Your task to perform on an android device: uninstall "Facebook Messenger" Image 0: 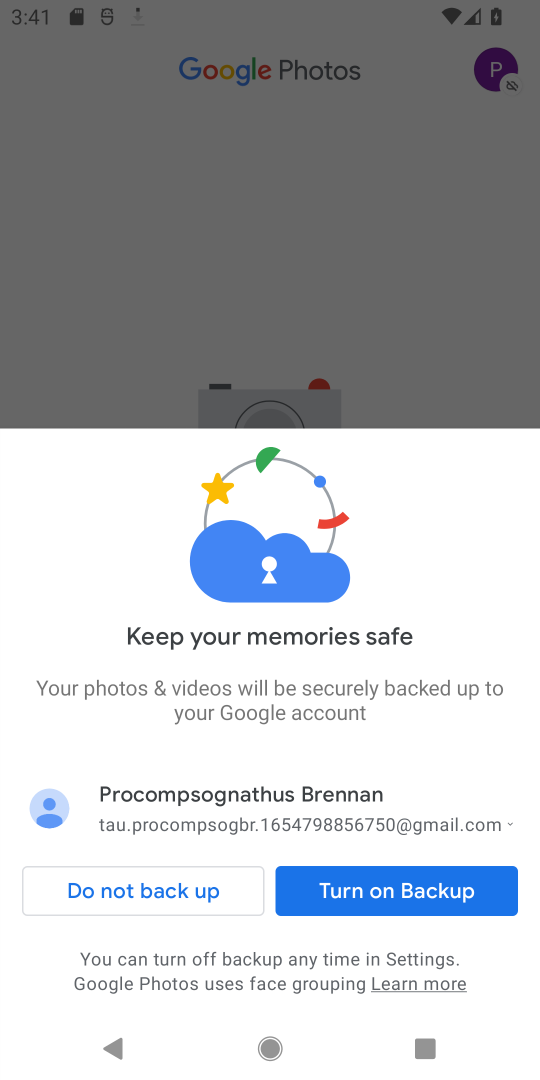
Step 0: press home button
Your task to perform on an android device: uninstall "Facebook Messenger" Image 1: 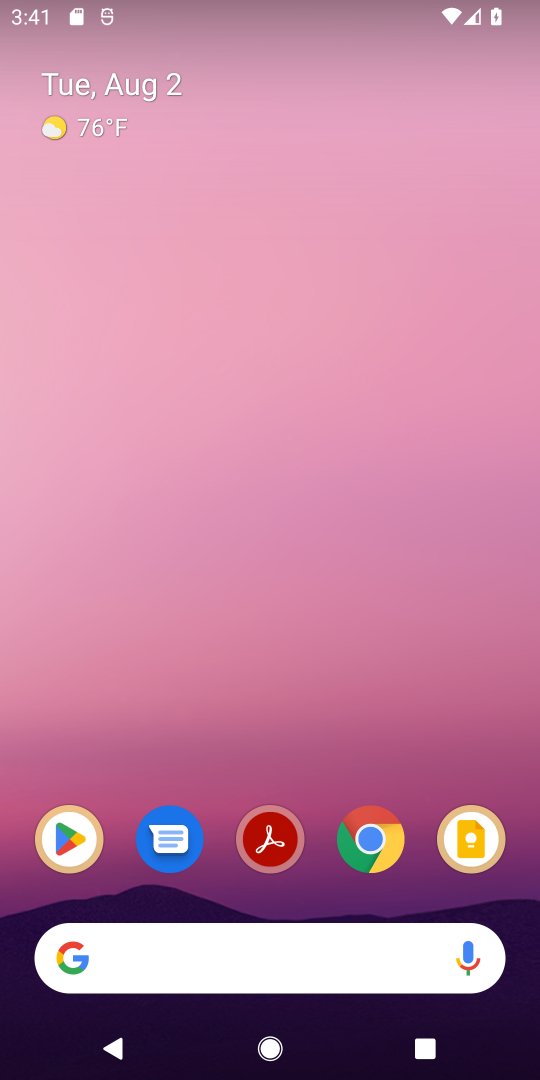
Step 1: drag from (223, 893) to (216, 72)
Your task to perform on an android device: uninstall "Facebook Messenger" Image 2: 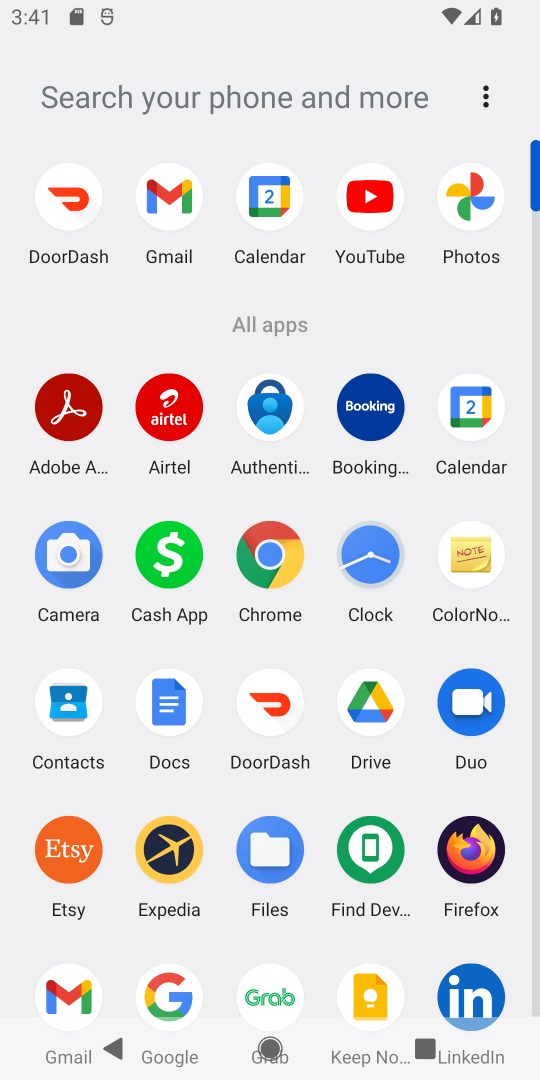
Step 2: click (261, 1063)
Your task to perform on an android device: uninstall "Facebook Messenger" Image 3: 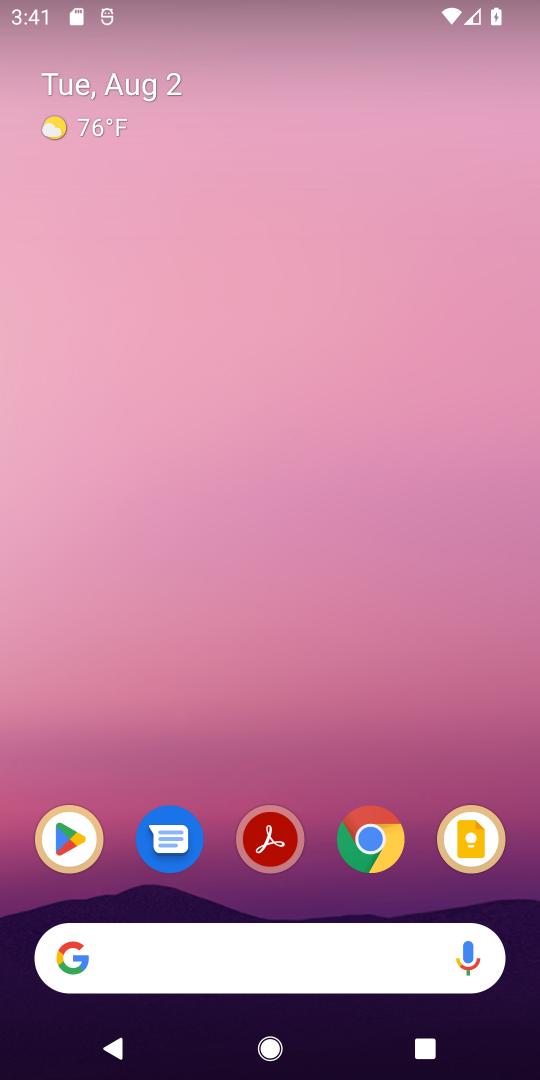
Step 3: click (52, 834)
Your task to perform on an android device: uninstall "Facebook Messenger" Image 4: 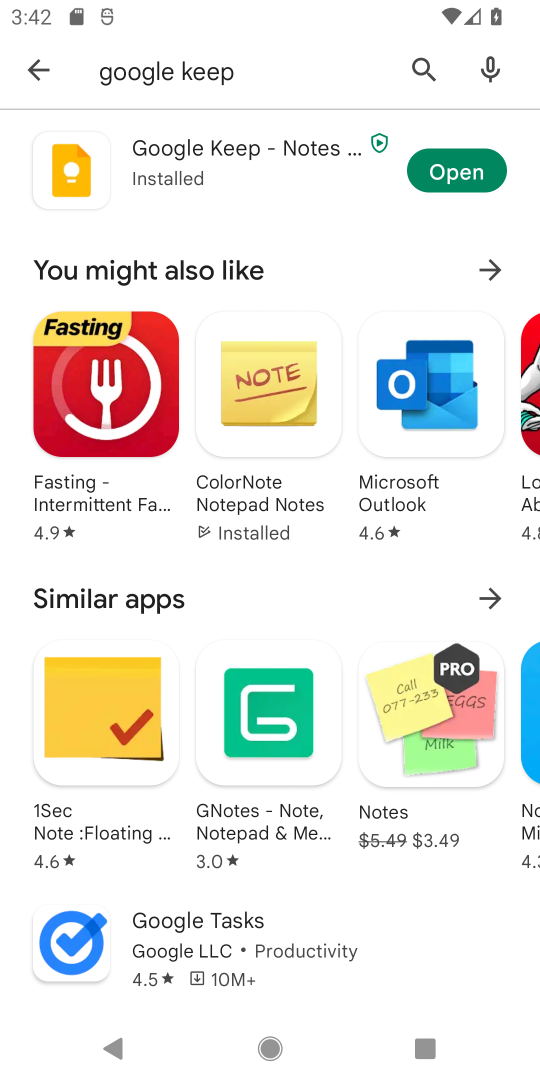
Step 4: click (408, 82)
Your task to perform on an android device: uninstall "Facebook Messenger" Image 5: 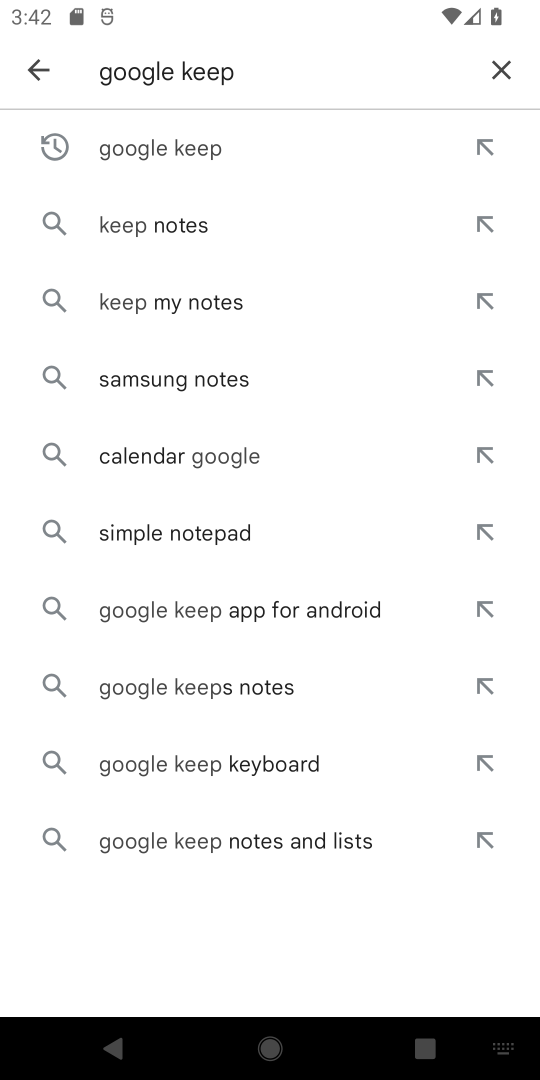
Step 5: click (498, 76)
Your task to perform on an android device: uninstall "Facebook Messenger" Image 6: 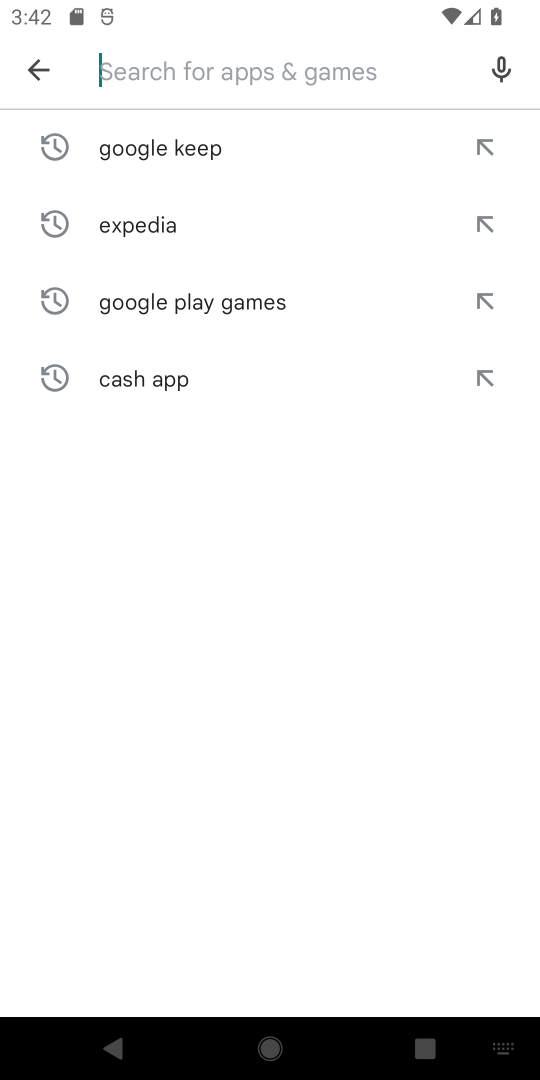
Step 6: type "facebook messanger"
Your task to perform on an android device: uninstall "Facebook Messenger" Image 7: 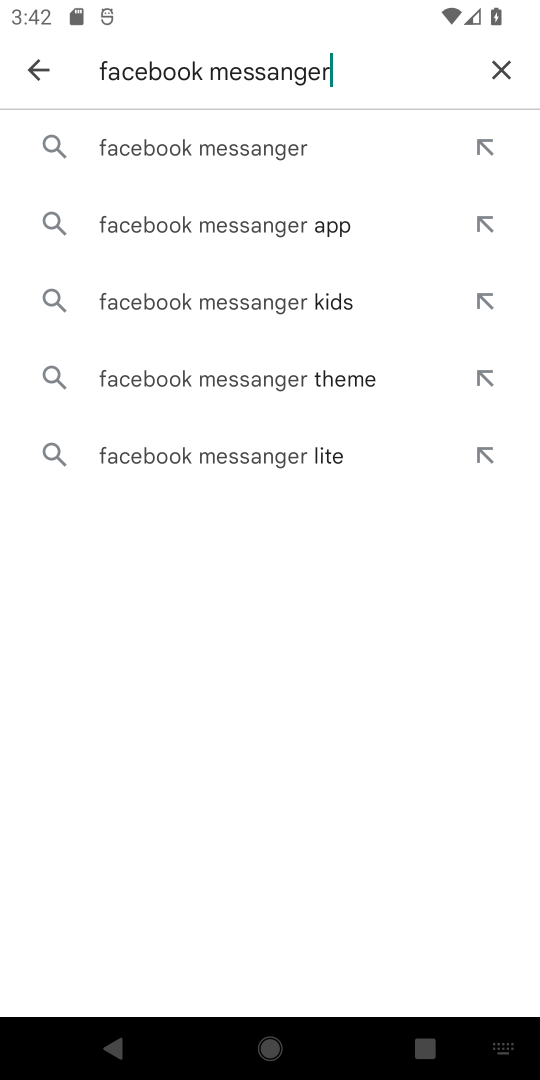
Step 7: click (285, 159)
Your task to perform on an android device: uninstall "Facebook Messenger" Image 8: 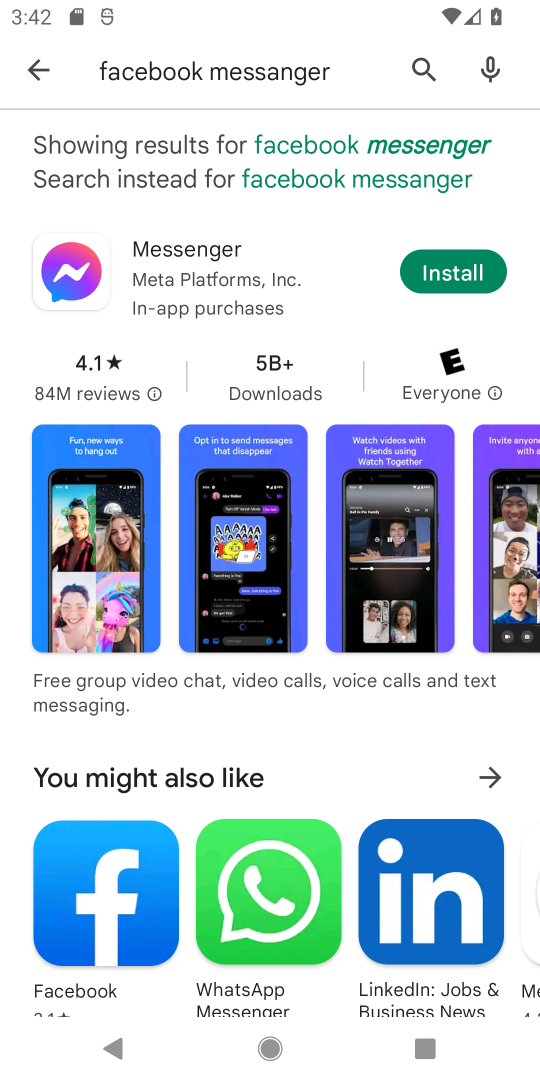
Step 8: click (435, 266)
Your task to perform on an android device: uninstall "Facebook Messenger" Image 9: 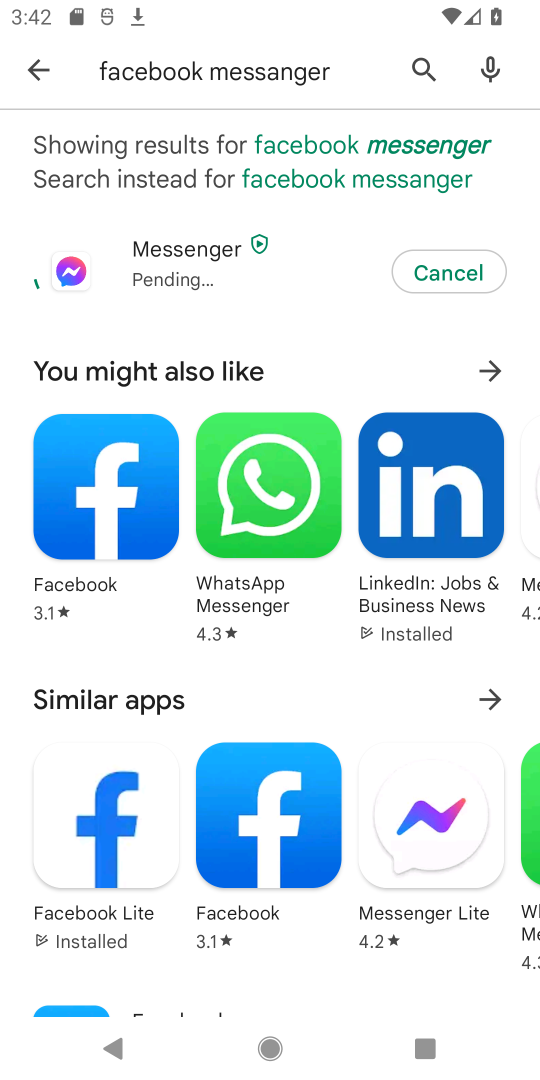
Step 9: task complete